Your task to perform on an android device: Open the web browser Image 0: 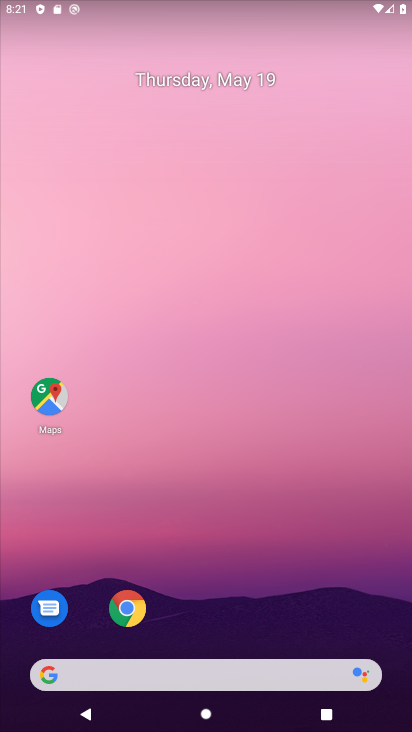
Step 0: press back button
Your task to perform on an android device: Open the web browser Image 1: 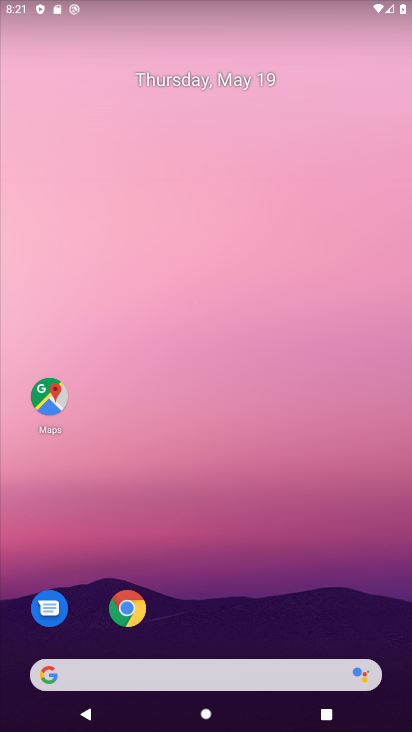
Step 1: drag from (243, 673) to (168, 1)
Your task to perform on an android device: Open the web browser Image 2: 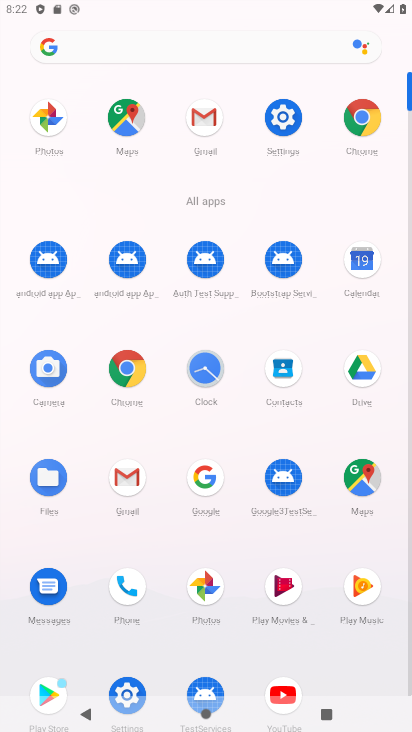
Step 2: click (351, 114)
Your task to perform on an android device: Open the web browser Image 3: 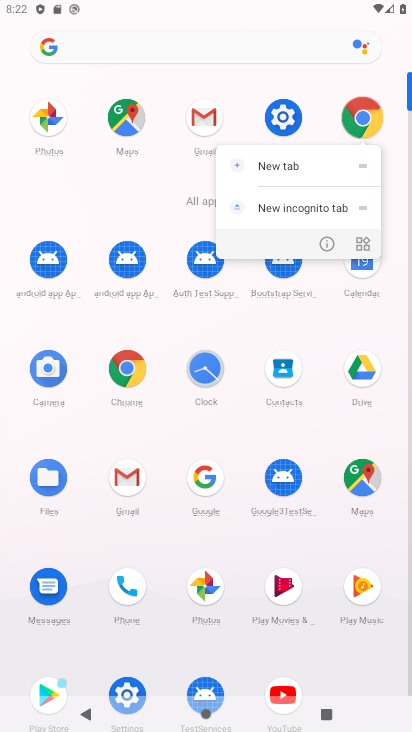
Step 3: click (372, 165)
Your task to perform on an android device: Open the web browser Image 4: 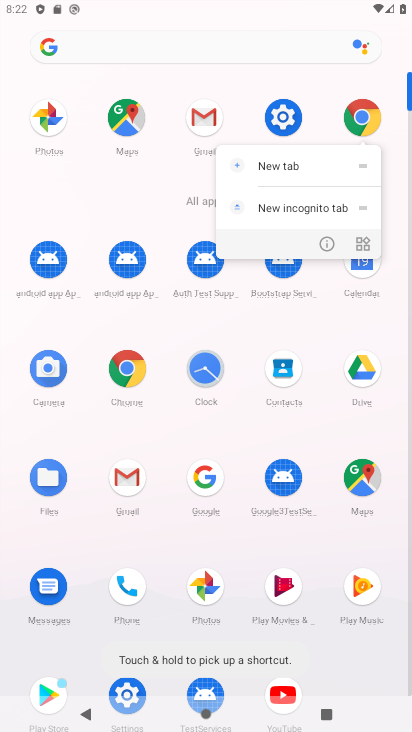
Step 4: click (362, 100)
Your task to perform on an android device: Open the web browser Image 5: 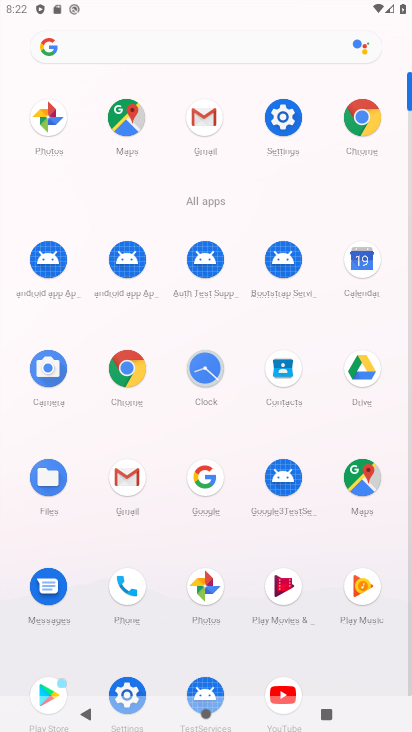
Step 5: click (361, 112)
Your task to perform on an android device: Open the web browser Image 6: 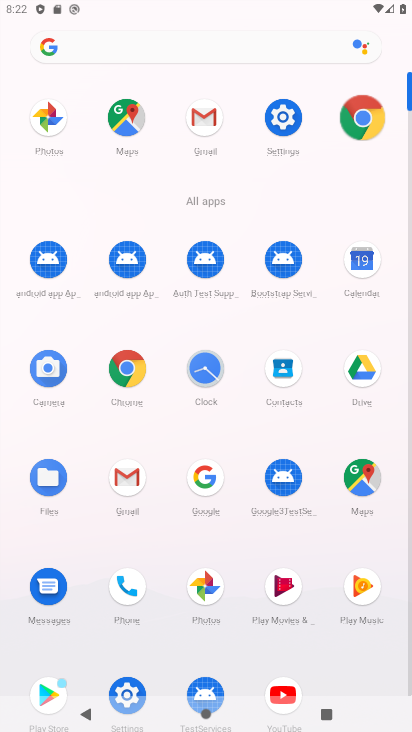
Step 6: click (361, 112)
Your task to perform on an android device: Open the web browser Image 7: 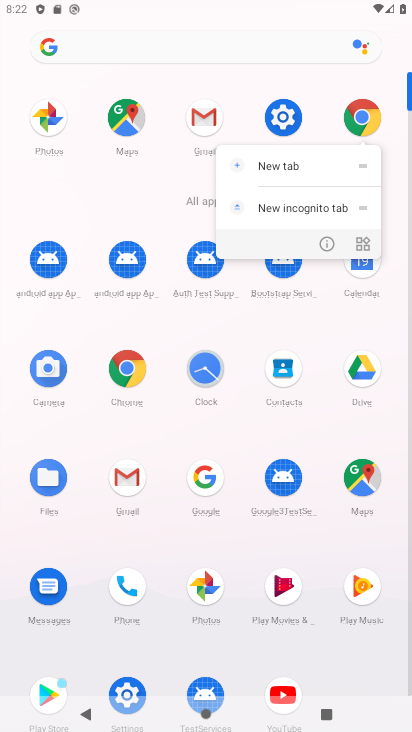
Step 7: click (361, 112)
Your task to perform on an android device: Open the web browser Image 8: 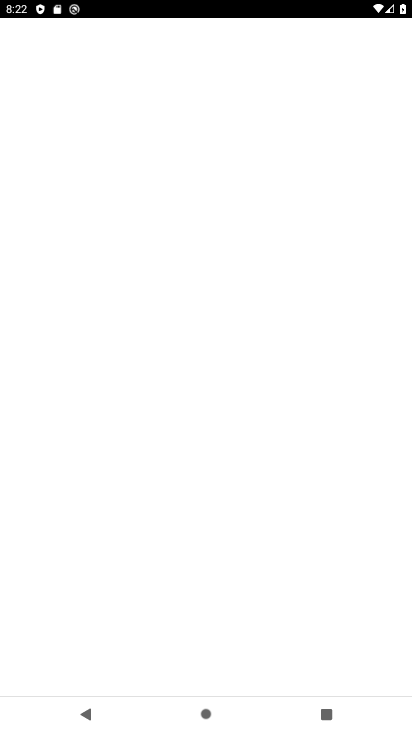
Step 8: click (356, 117)
Your task to perform on an android device: Open the web browser Image 9: 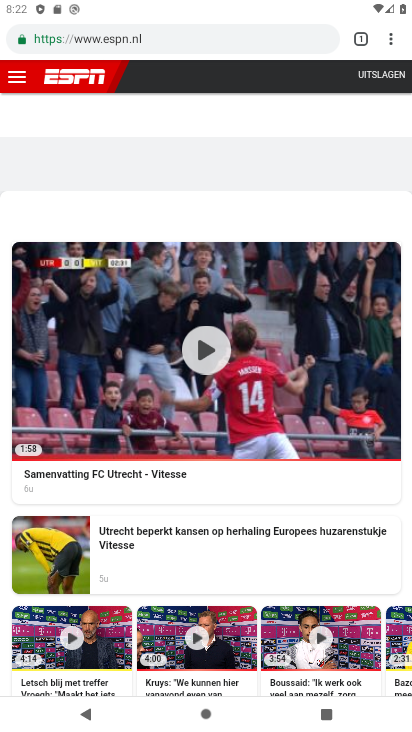
Step 9: task complete